Your task to perform on an android device: Show me recent news Image 0: 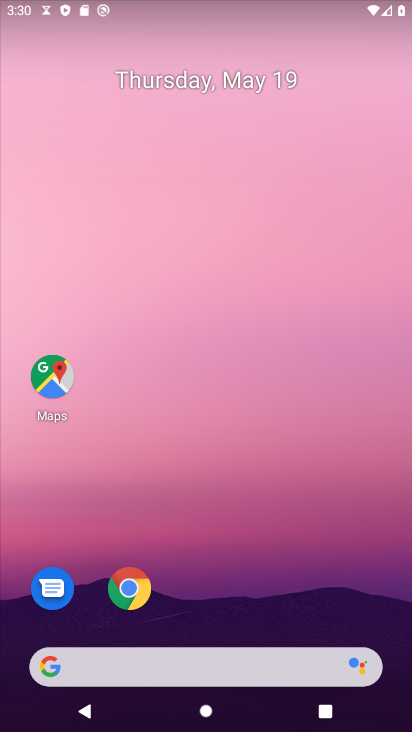
Step 0: click (180, 663)
Your task to perform on an android device: Show me recent news Image 1: 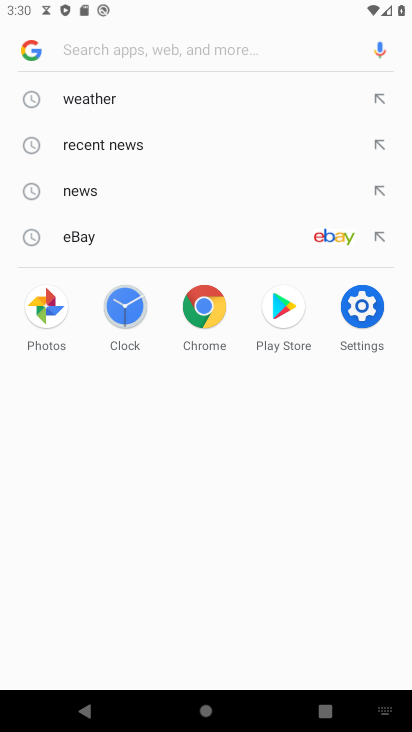
Step 1: click (134, 139)
Your task to perform on an android device: Show me recent news Image 2: 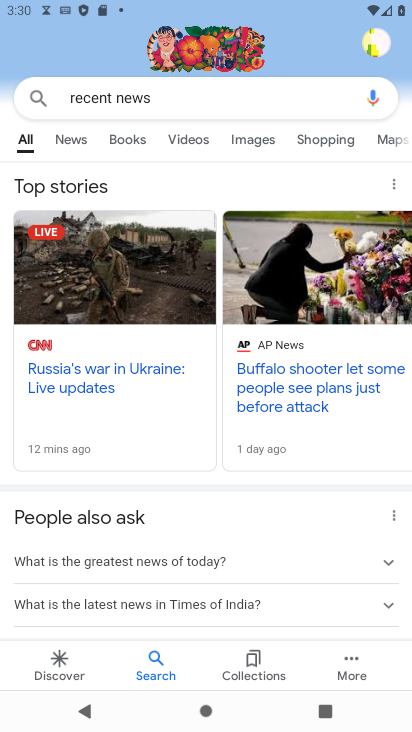
Step 2: task complete